Your task to perform on an android device: turn vacation reply on in the gmail app Image 0: 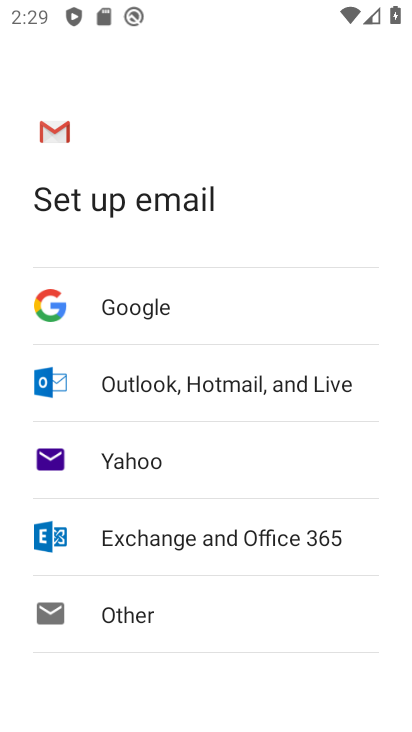
Step 0: press home button
Your task to perform on an android device: turn vacation reply on in the gmail app Image 1: 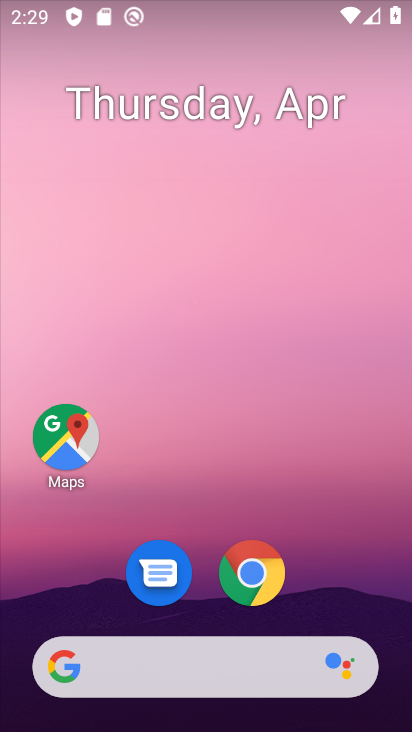
Step 1: drag from (356, 607) to (246, 0)
Your task to perform on an android device: turn vacation reply on in the gmail app Image 2: 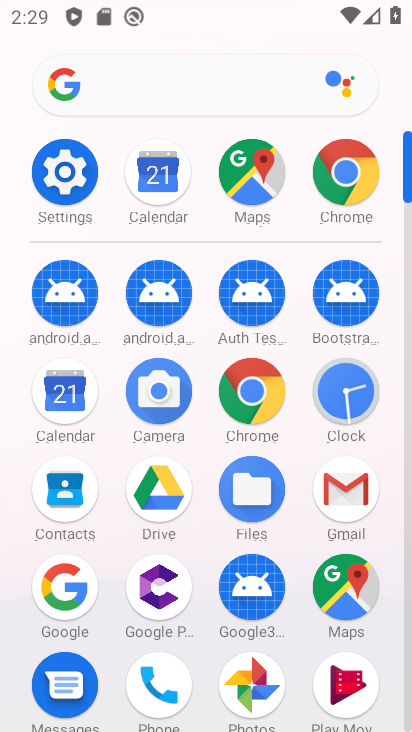
Step 2: click (358, 493)
Your task to perform on an android device: turn vacation reply on in the gmail app Image 3: 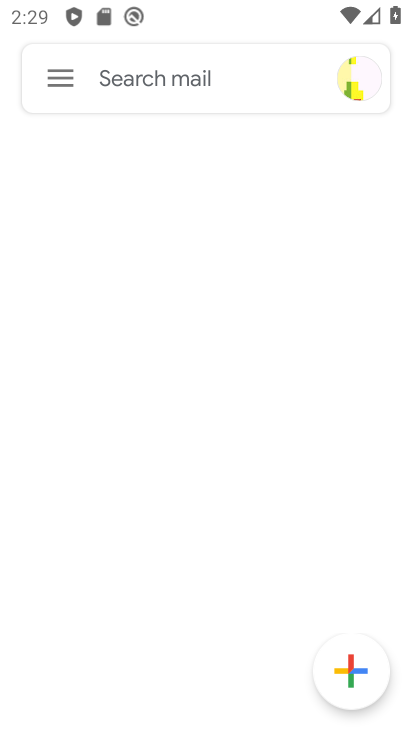
Step 3: click (50, 75)
Your task to perform on an android device: turn vacation reply on in the gmail app Image 4: 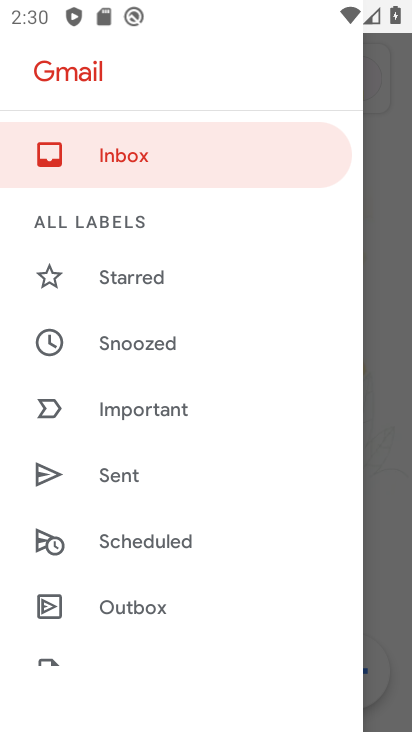
Step 4: drag from (98, 618) to (95, 107)
Your task to perform on an android device: turn vacation reply on in the gmail app Image 5: 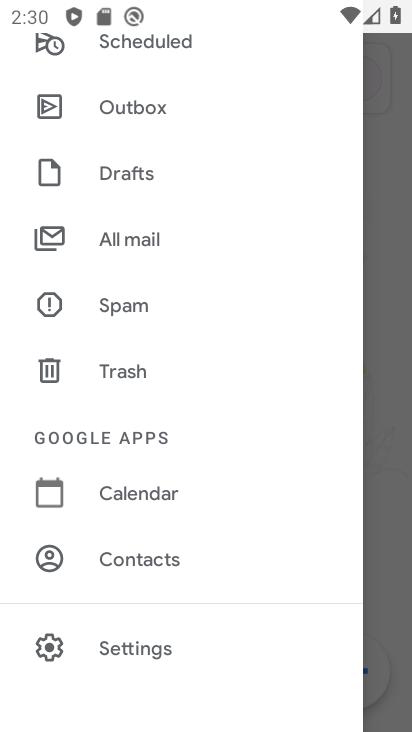
Step 5: click (134, 629)
Your task to perform on an android device: turn vacation reply on in the gmail app Image 6: 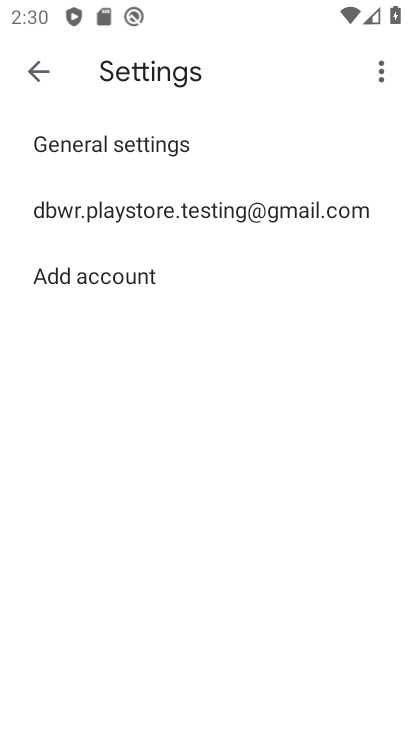
Step 6: click (288, 225)
Your task to perform on an android device: turn vacation reply on in the gmail app Image 7: 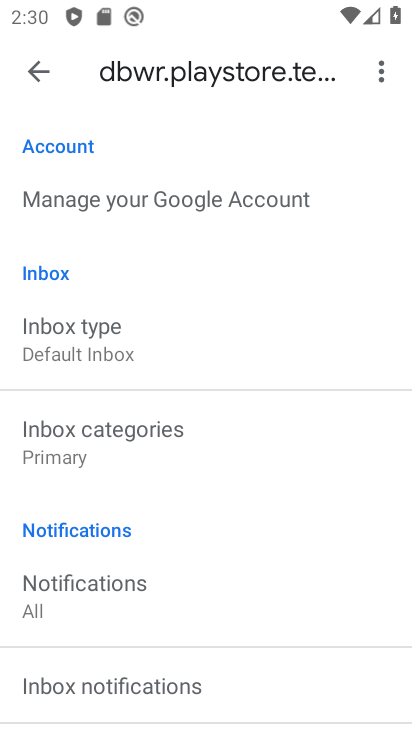
Step 7: drag from (84, 664) to (196, 95)
Your task to perform on an android device: turn vacation reply on in the gmail app Image 8: 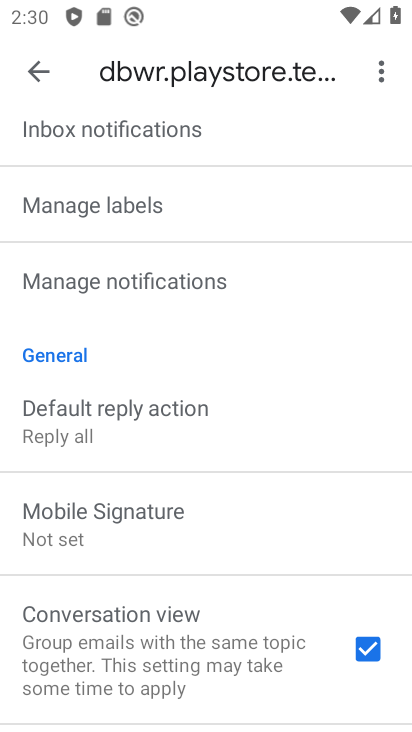
Step 8: drag from (191, 556) to (220, 133)
Your task to perform on an android device: turn vacation reply on in the gmail app Image 9: 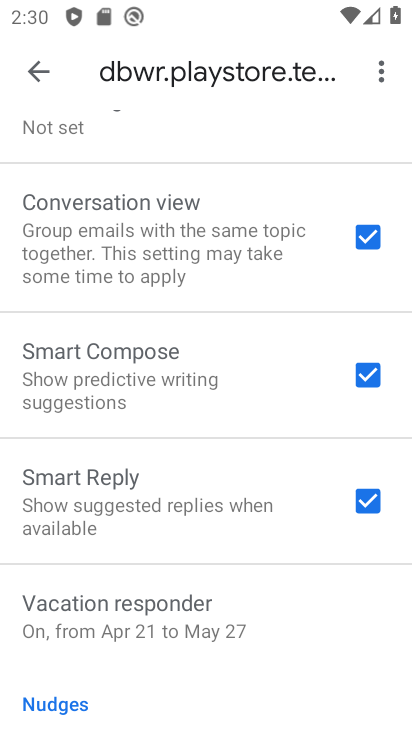
Step 9: click (166, 641)
Your task to perform on an android device: turn vacation reply on in the gmail app Image 10: 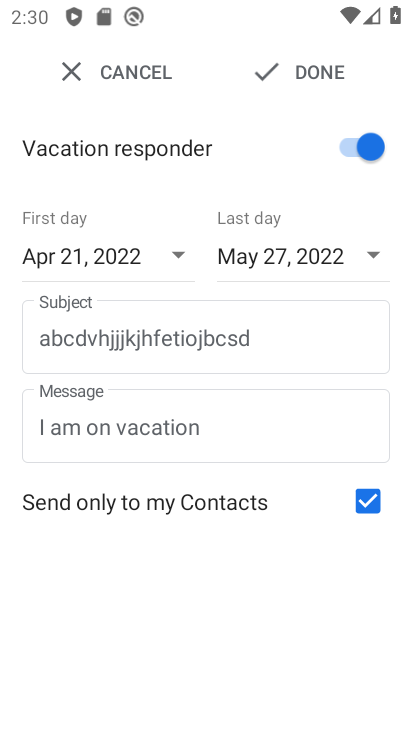
Step 10: task complete